Your task to perform on an android device: Do I have any events tomorrow? Image 0: 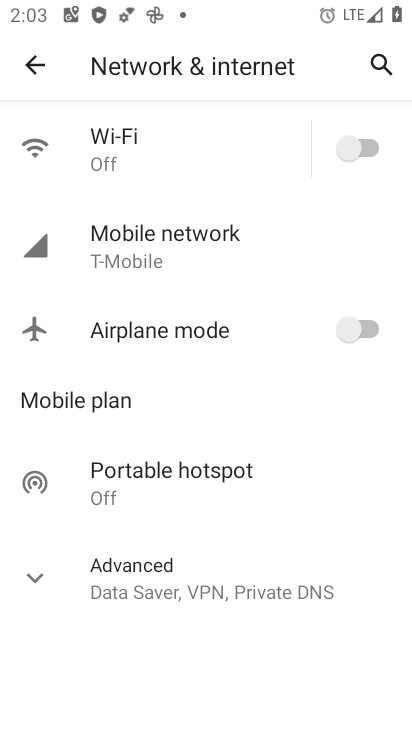
Step 0: press home button
Your task to perform on an android device: Do I have any events tomorrow? Image 1: 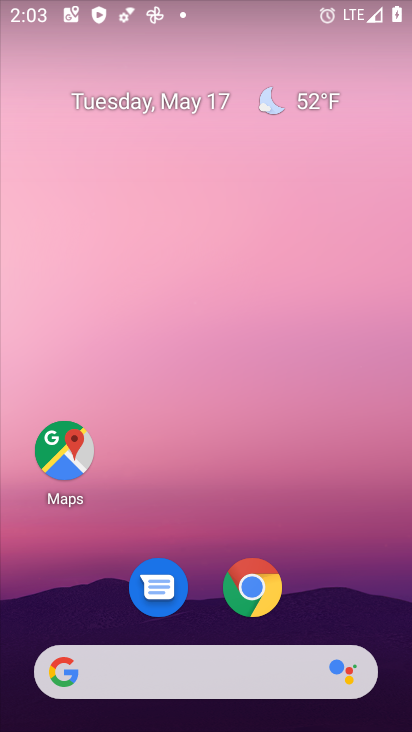
Step 1: drag from (345, 576) to (231, 155)
Your task to perform on an android device: Do I have any events tomorrow? Image 2: 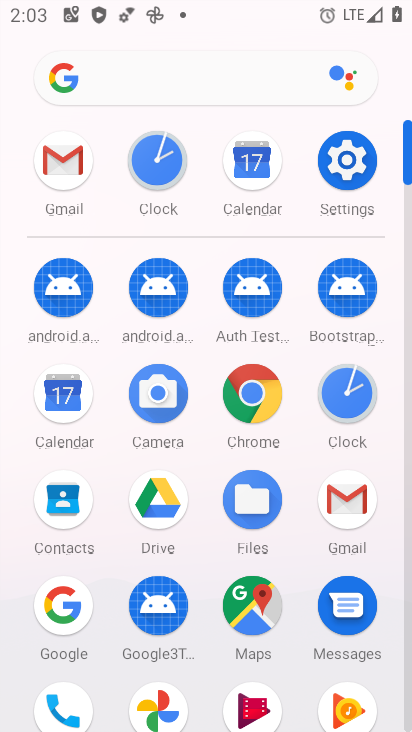
Step 2: click (239, 183)
Your task to perform on an android device: Do I have any events tomorrow? Image 3: 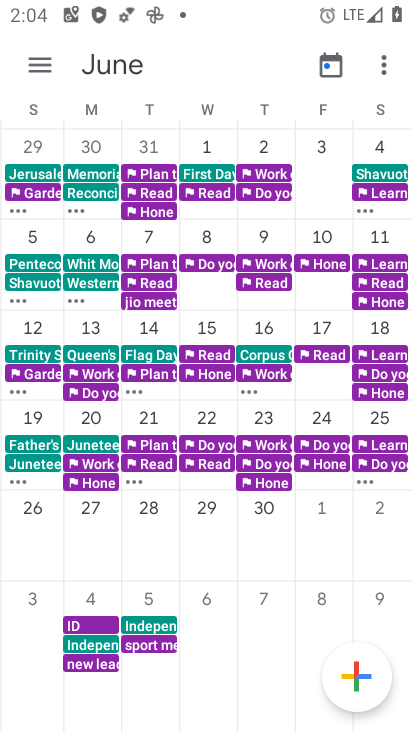
Step 3: task complete